Your task to perform on an android device: Show me popular videos on Youtube Image 0: 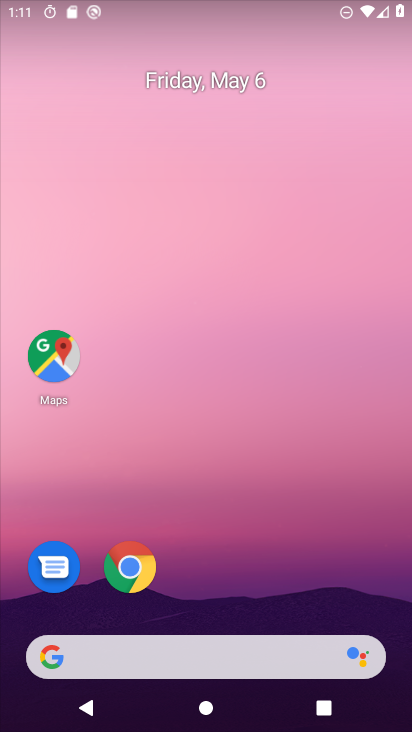
Step 0: drag from (250, 678) to (280, 300)
Your task to perform on an android device: Show me popular videos on Youtube Image 1: 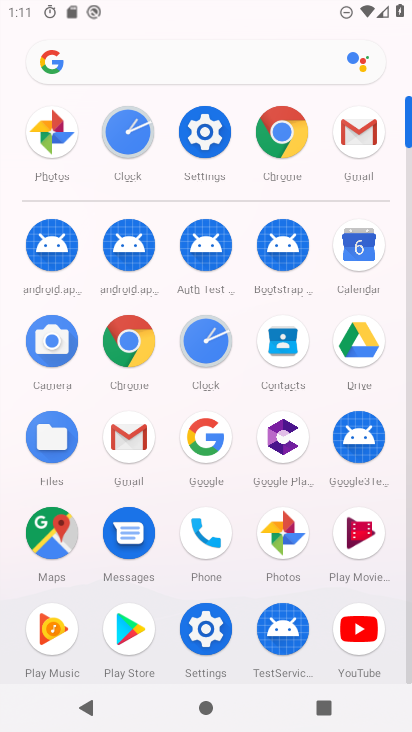
Step 1: click (375, 636)
Your task to perform on an android device: Show me popular videos on Youtube Image 2: 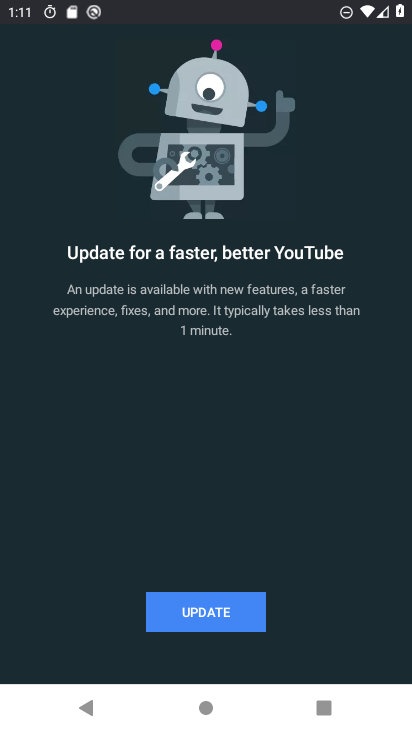
Step 2: click (239, 618)
Your task to perform on an android device: Show me popular videos on Youtube Image 3: 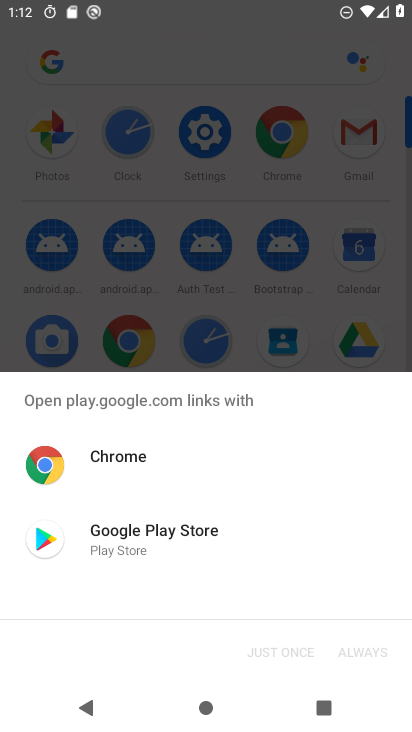
Step 3: click (164, 534)
Your task to perform on an android device: Show me popular videos on Youtube Image 4: 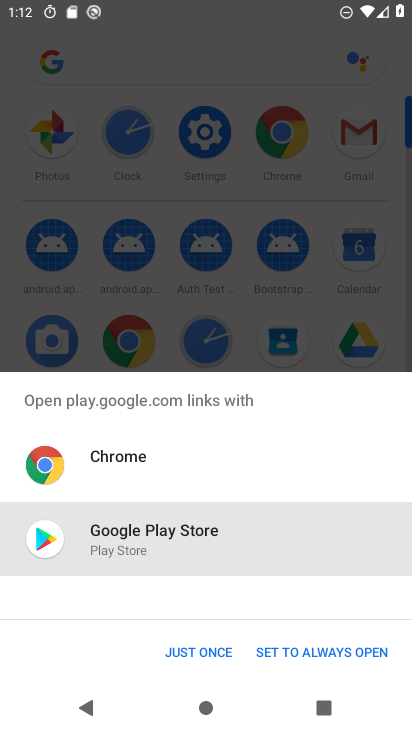
Step 4: click (216, 652)
Your task to perform on an android device: Show me popular videos on Youtube Image 5: 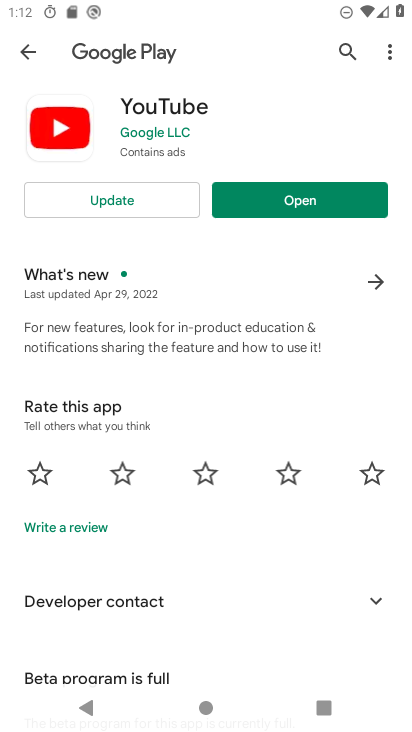
Step 5: click (87, 212)
Your task to perform on an android device: Show me popular videos on Youtube Image 6: 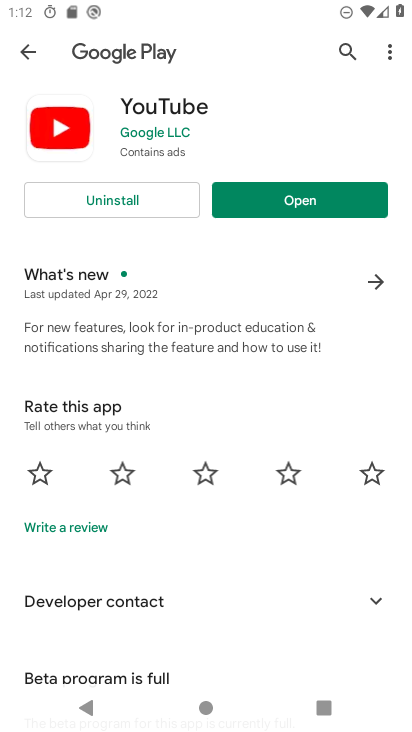
Step 6: click (286, 188)
Your task to perform on an android device: Show me popular videos on Youtube Image 7: 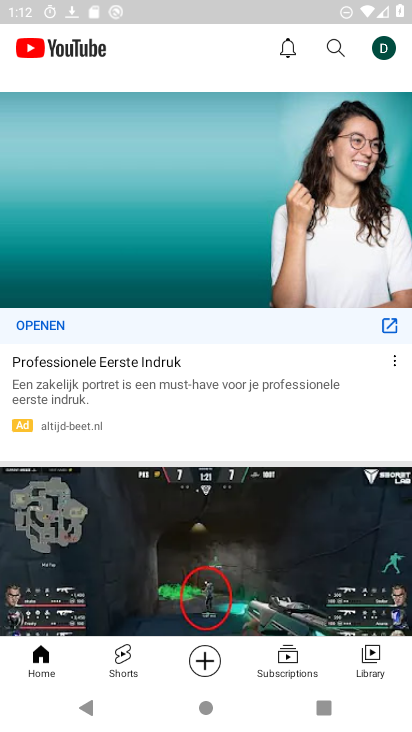
Step 7: click (330, 45)
Your task to perform on an android device: Show me popular videos on Youtube Image 8: 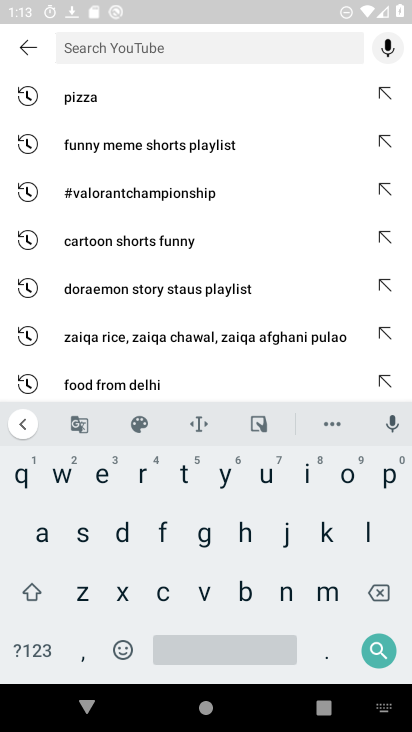
Step 8: click (382, 483)
Your task to perform on an android device: Show me popular videos on Youtube Image 9: 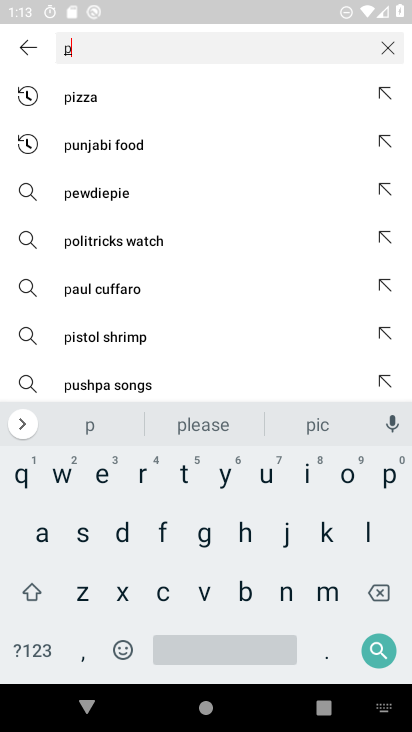
Step 9: click (348, 481)
Your task to perform on an android device: Show me popular videos on Youtube Image 10: 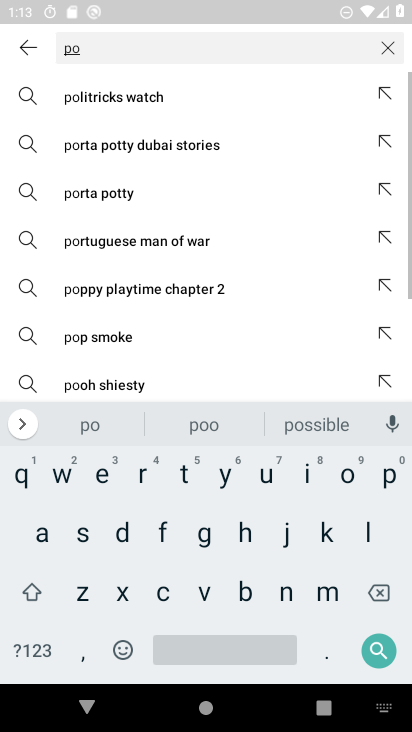
Step 10: click (387, 492)
Your task to perform on an android device: Show me popular videos on Youtube Image 11: 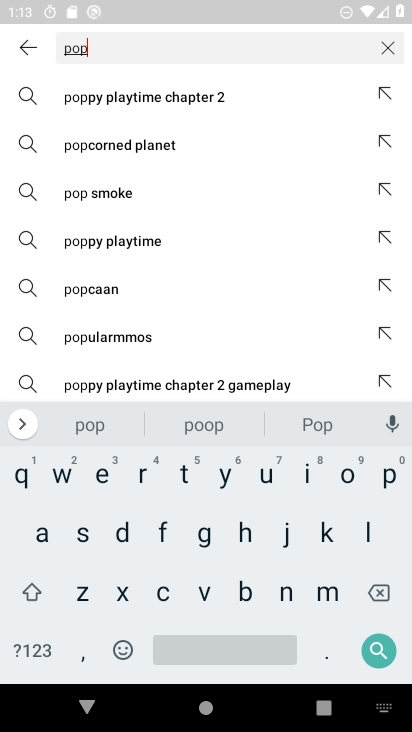
Step 11: click (262, 478)
Your task to perform on an android device: Show me popular videos on Youtube Image 12: 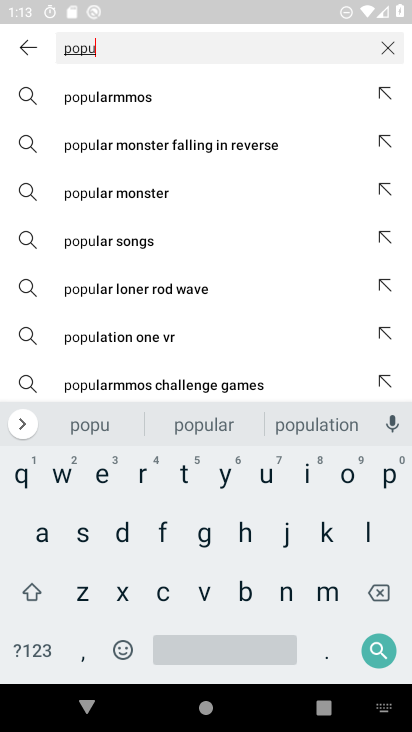
Step 12: click (212, 424)
Your task to perform on an android device: Show me popular videos on Youtube Image 13: 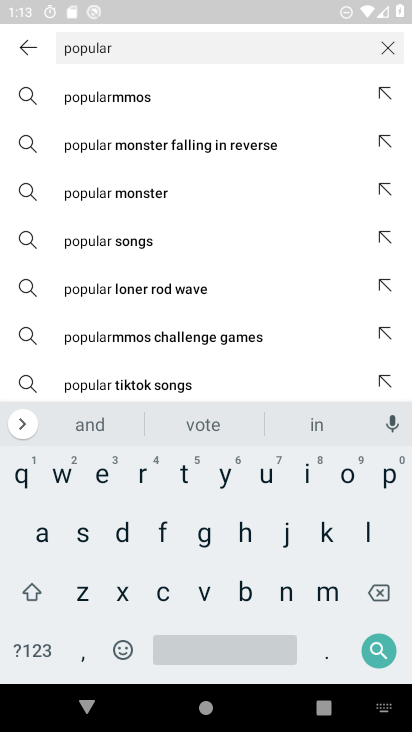
Step 13: click (202, 591)
Your task to perform on an android device: Show me popular videos on Youtube Image 14: 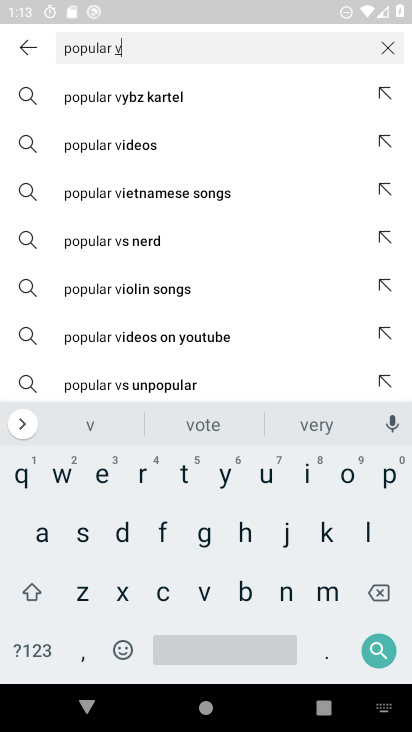
Step 14: click (147, 147)
Your task to perform on an android device: Show me popular videos on Youtube Image 15: 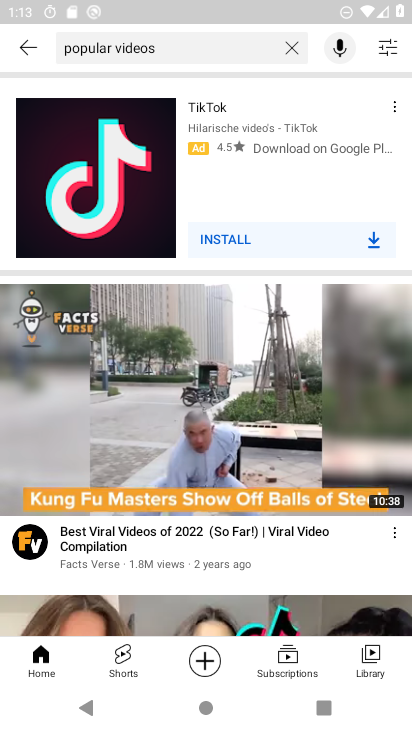
Step 15: task complete